Your task to perform on an android device: Clear the cart on costco. Search for "usb-c to usb-a" on costco, select the first entry, add it to the cart, then select checkout. Image 0: 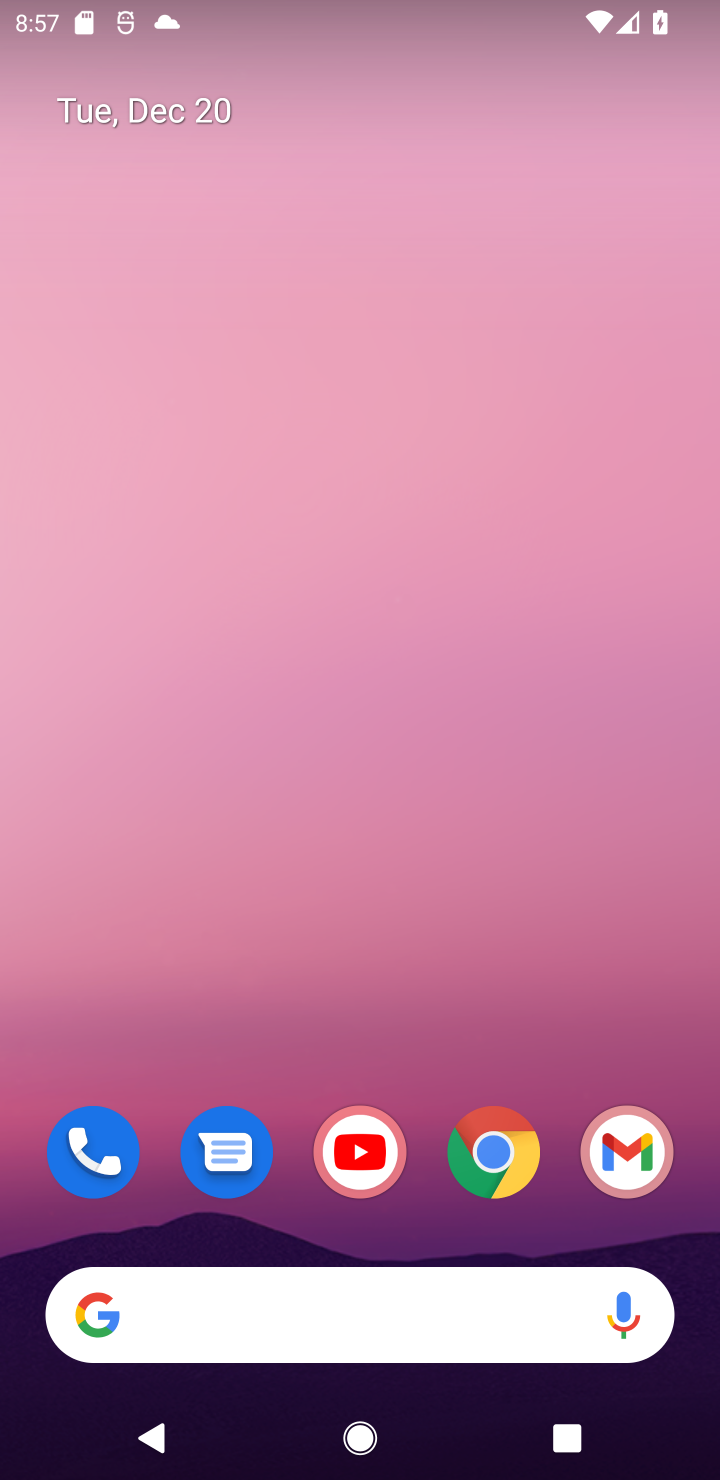
Step 0: click (503, 1167)
Your task to perform on an android device: Clear the cart on costco. Search for "usb-c to usb-a" on costco, select the first entry, add it to the cart, then select checkout. Image 1: 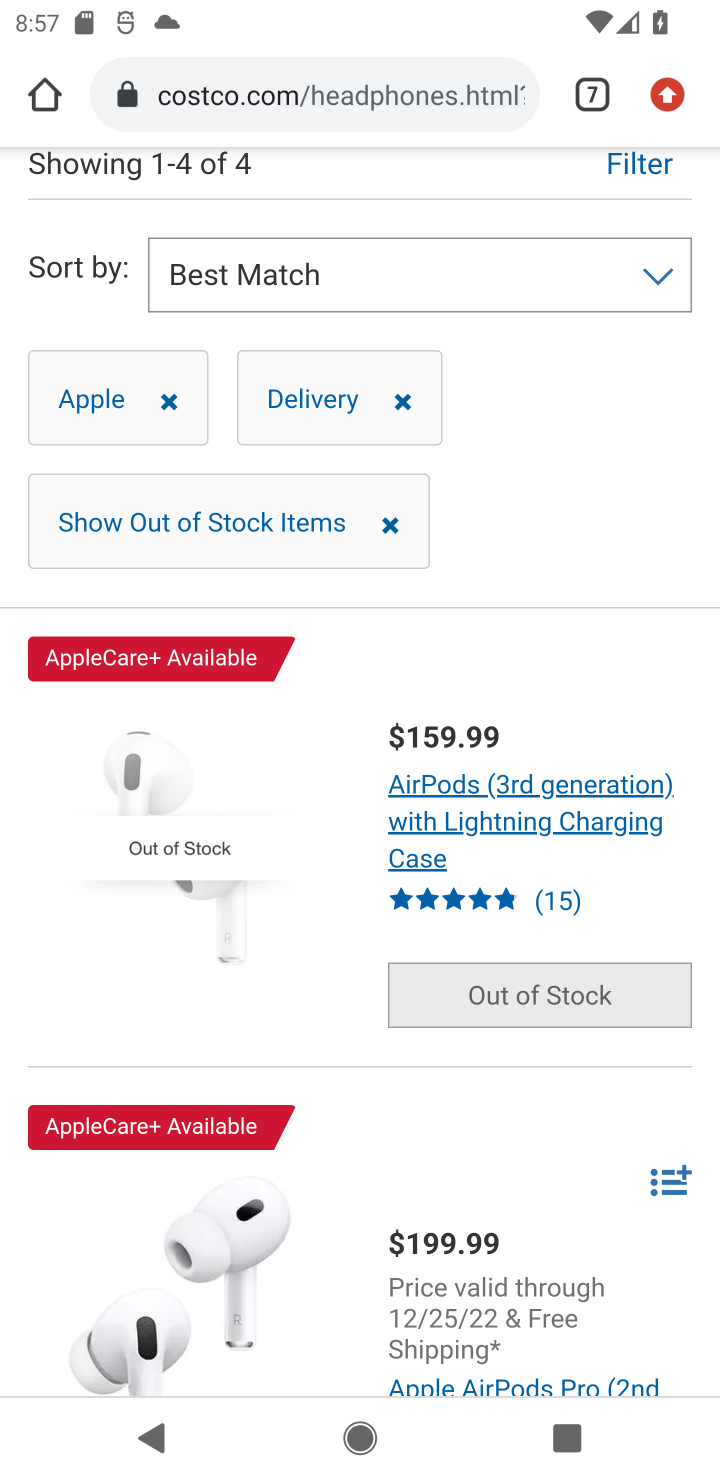
Step 1: drag from (457, 204) to (219, 1440)
Your task to perform on an android device: Clear the cart on costco. Search for "usb-c to usb-a" on costco, select the first entry, add it to the cart, then select checkout. Image 2: 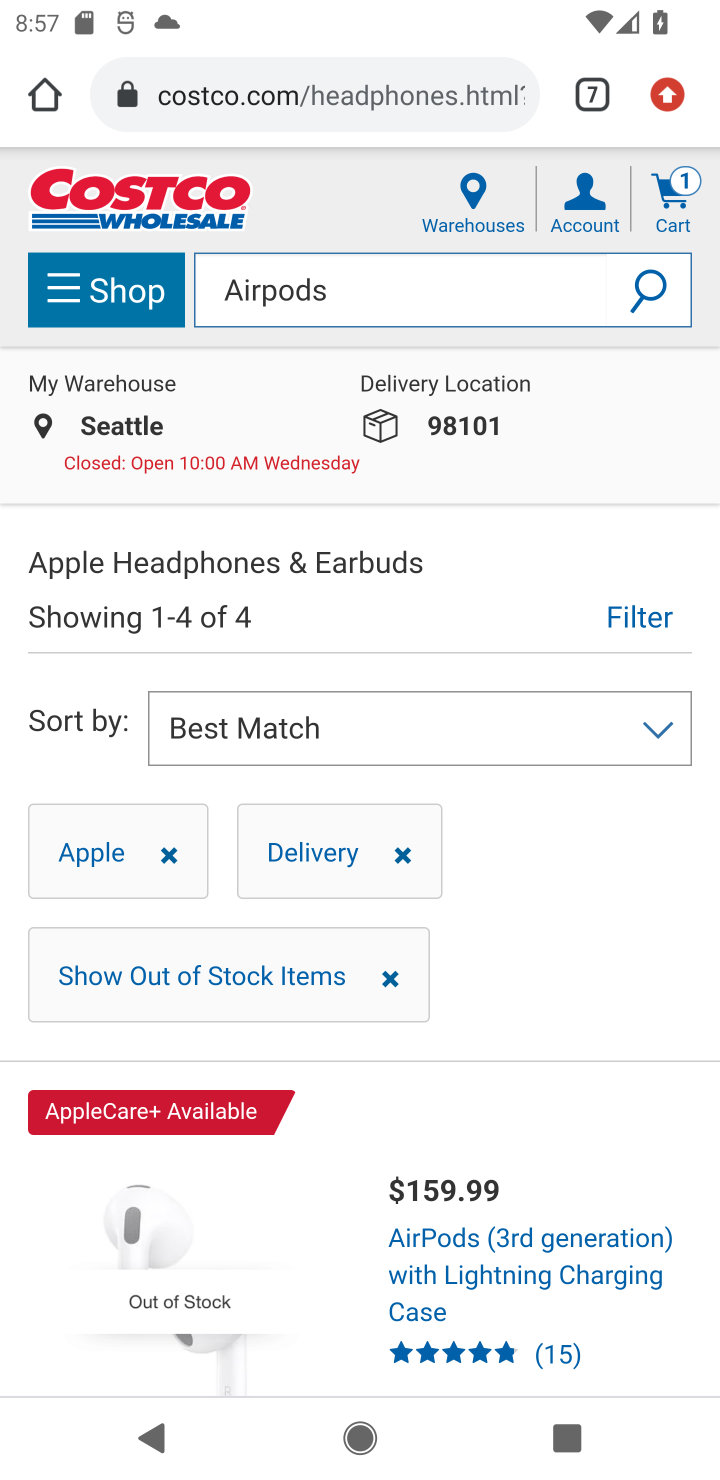
Step 2: click (389, 269)
Your task to perform on an android device: Clear the cart on costco. Search for "usb-c to usb-a" on costco, select the first entry, add it to the cart, then select checkout. Image 3: 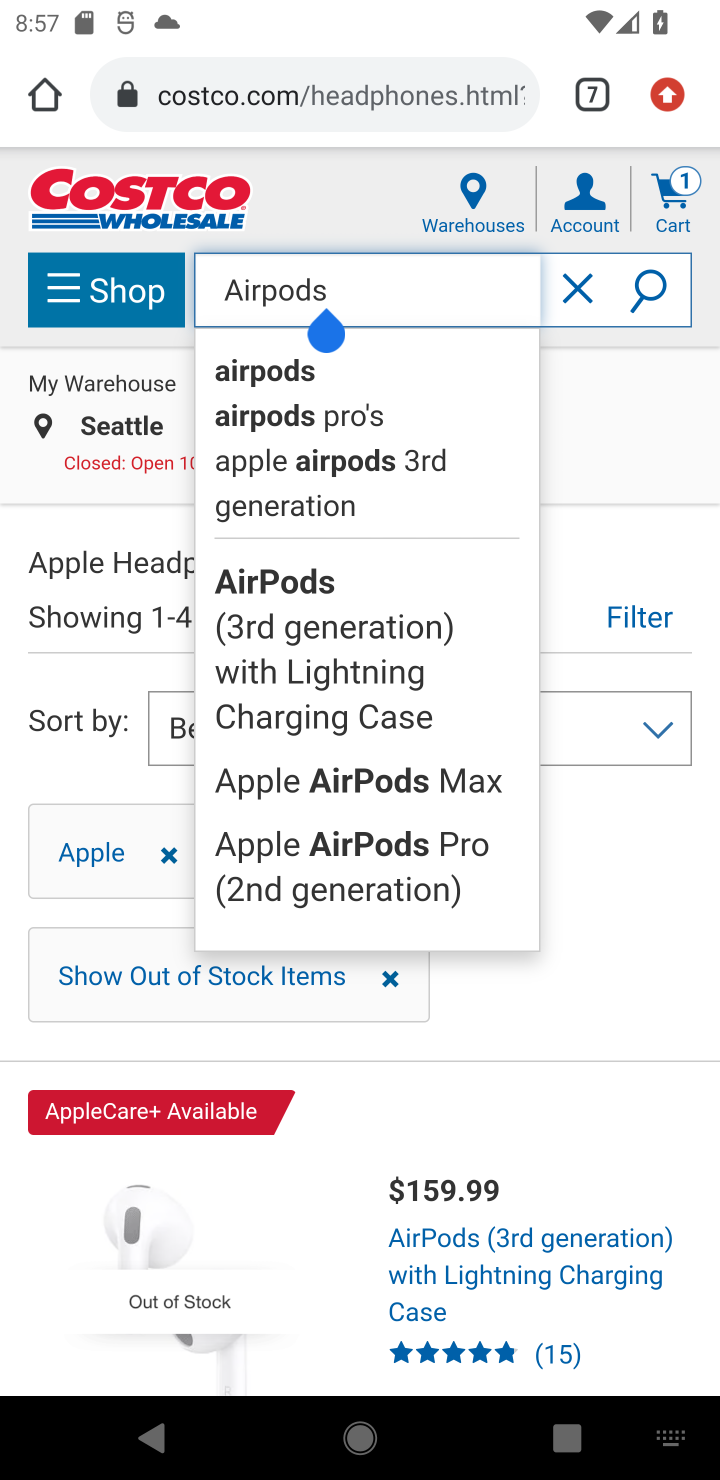
Step 3: click (563, 303)
Your task to perform on an android device: Clear the cart on costco. Search for "usb-c to usb-a" on costco, select the first entry, add it to the cart, then select checkout. Image 4: 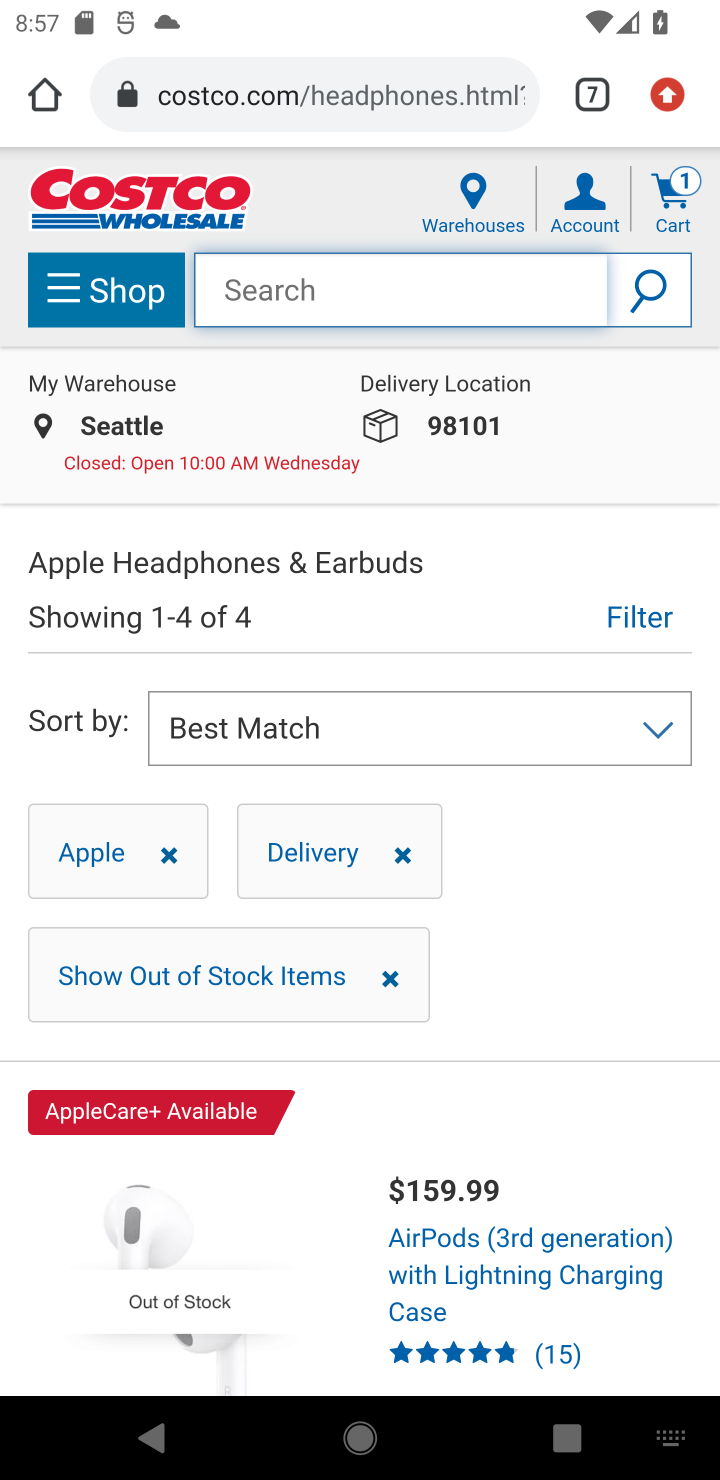
Step 4: type "usb-c to usb-a"
Your task to perform on an android device: Clear the cart on costco. Search for "usb-c to usb-a" on costco, select the first entry, add it to the cart, then select checkout. Image 5: 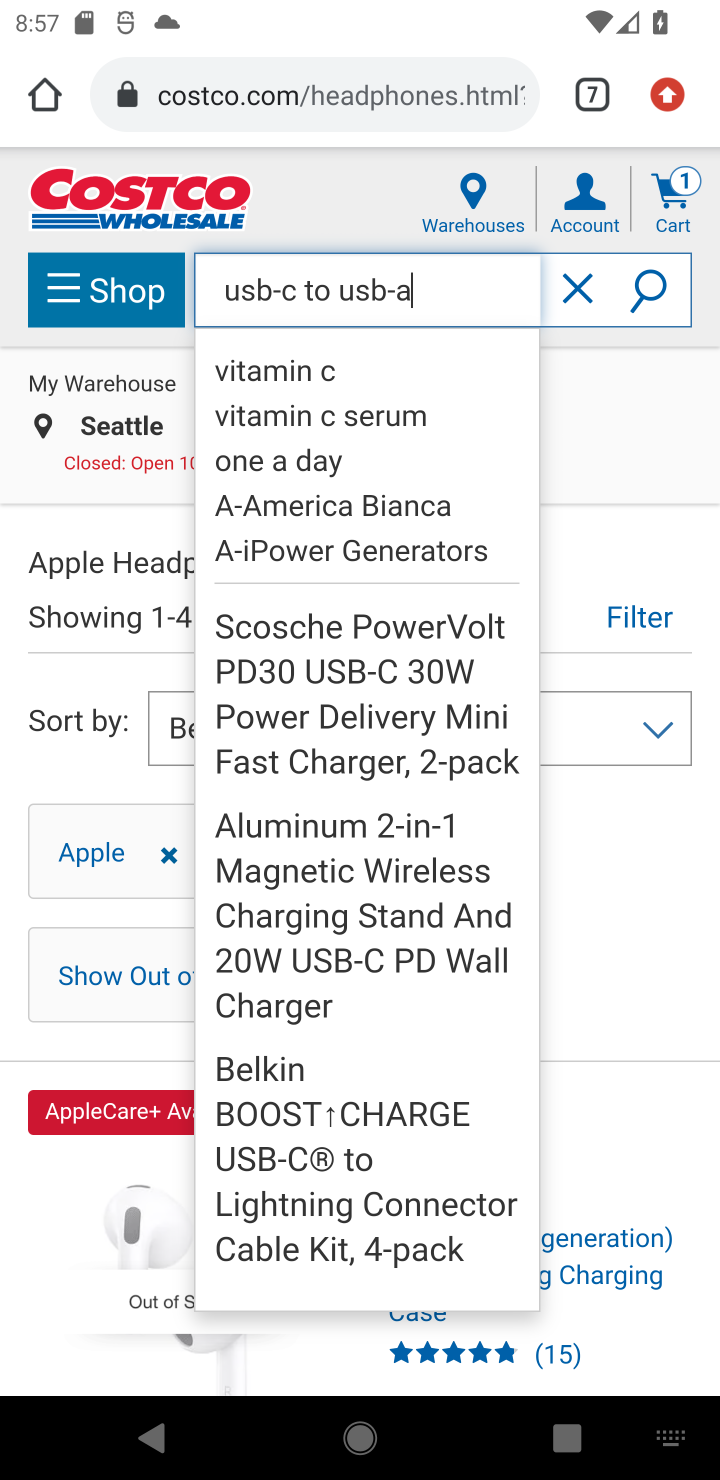
Step 5: click (652, 286)
Your task to perform on an android device: Clear the cart on costco. Search for "usb-c to usb-a" on costco, select the first entry, add it to the cart, then select checkout. Image 6: 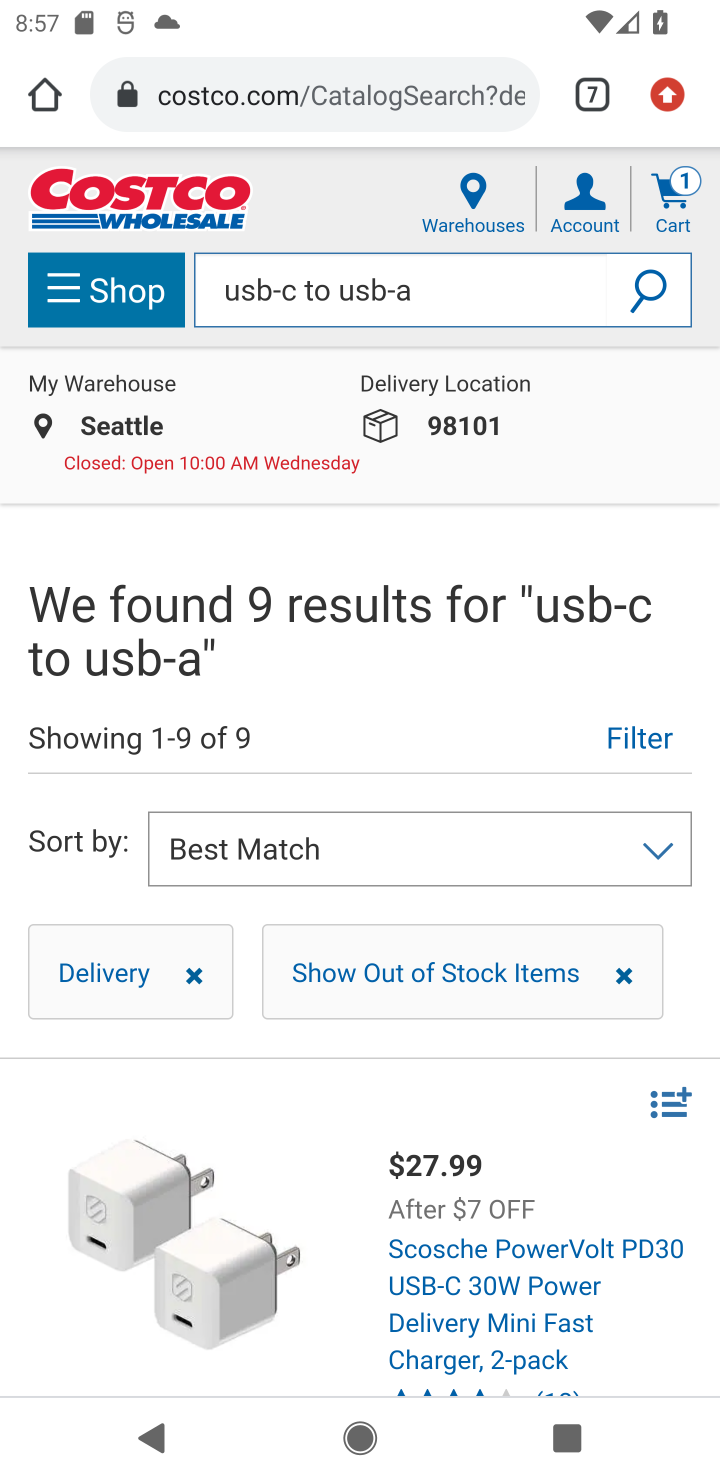
Step 6: task complete